Your task to perform on an android device: turn on airplane mode Image 0: 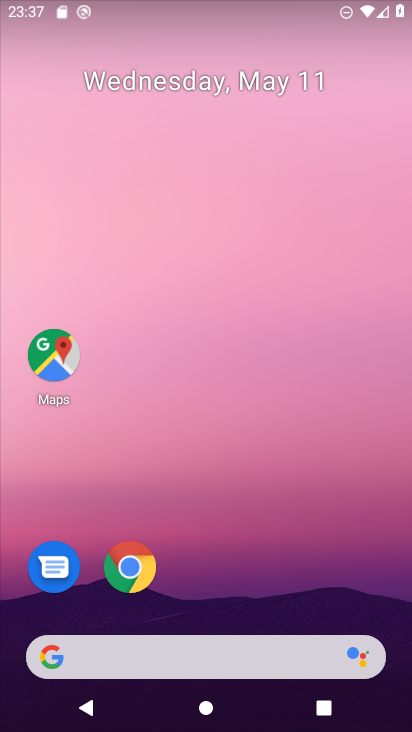
Step 0: drag from (246, 705) to (221, 1)
Your task to perform on an android device: turn on airplane mode Image 1: 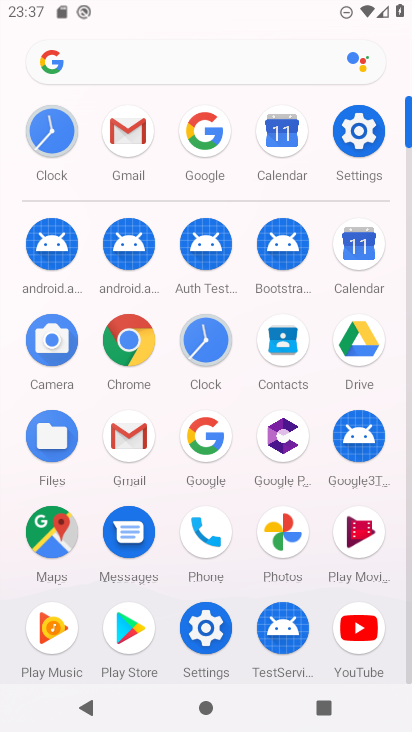
Step 1: click (361, 136)
Your task to perform on an android device: turn on airplane mode Image 2: 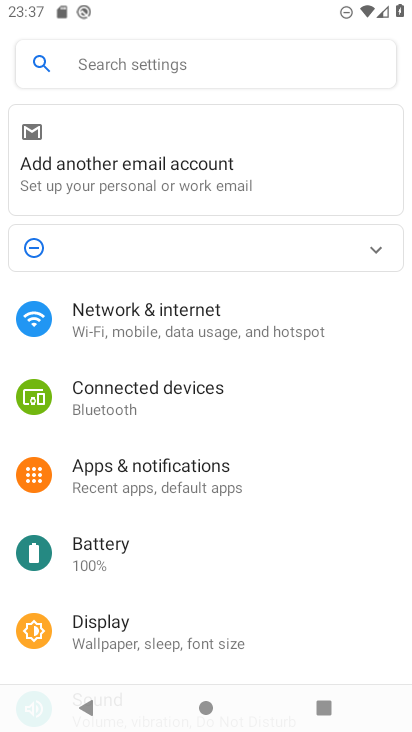
Step 2: click (231, 313)
Your task to perform on an android device: turn on airplane mode Image 3: 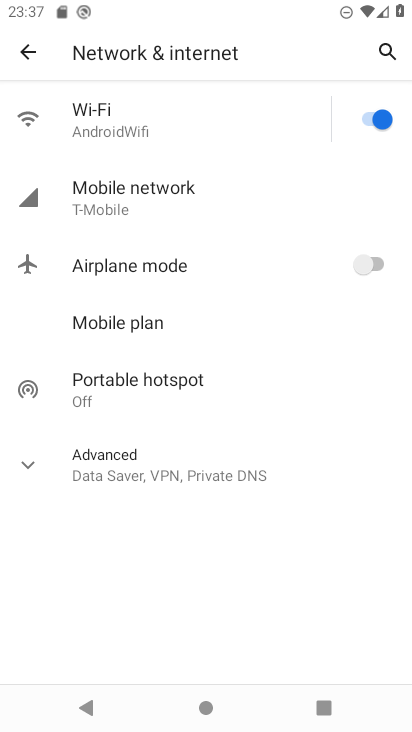
Step 3: click (385, 260)
Your task to perform on an android device: turn on airplane mode Image 4: 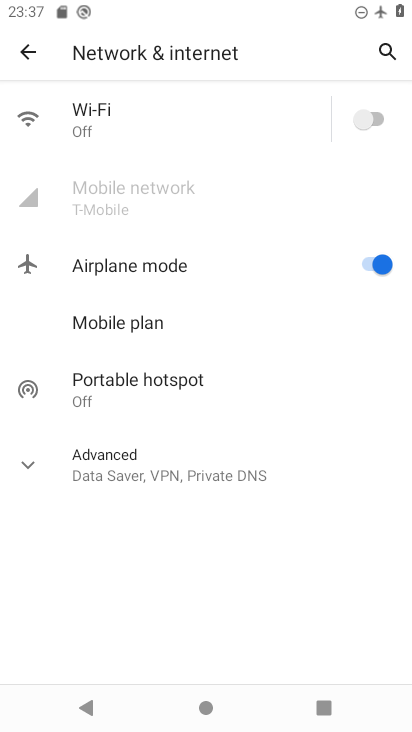
Step 4: task complete